Your task to perform on an android device: Open Google Maps Image 0: 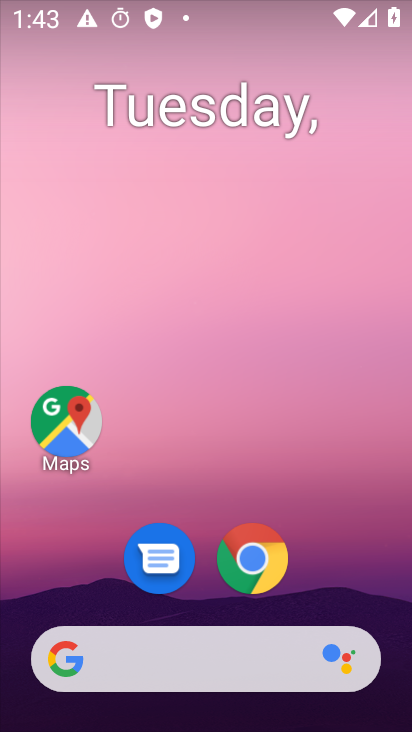
Step 0: click (78, 415)
Your task to perform on an android device: Open Google Maps Image 1: 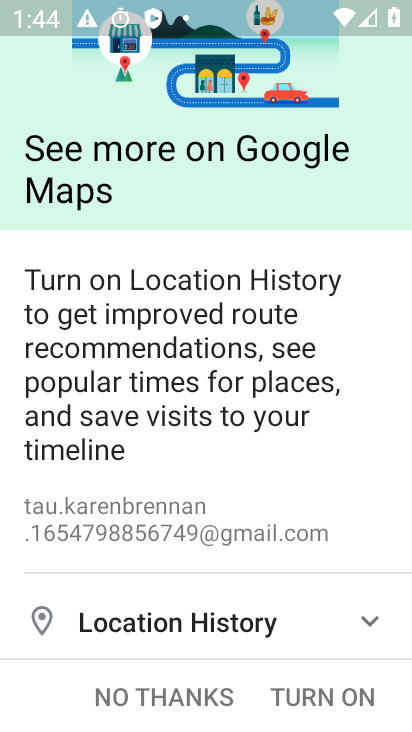
Step 1: task complete